Your task to perform on an android device: Open the phone app and click the voicemail tab. Image 0: 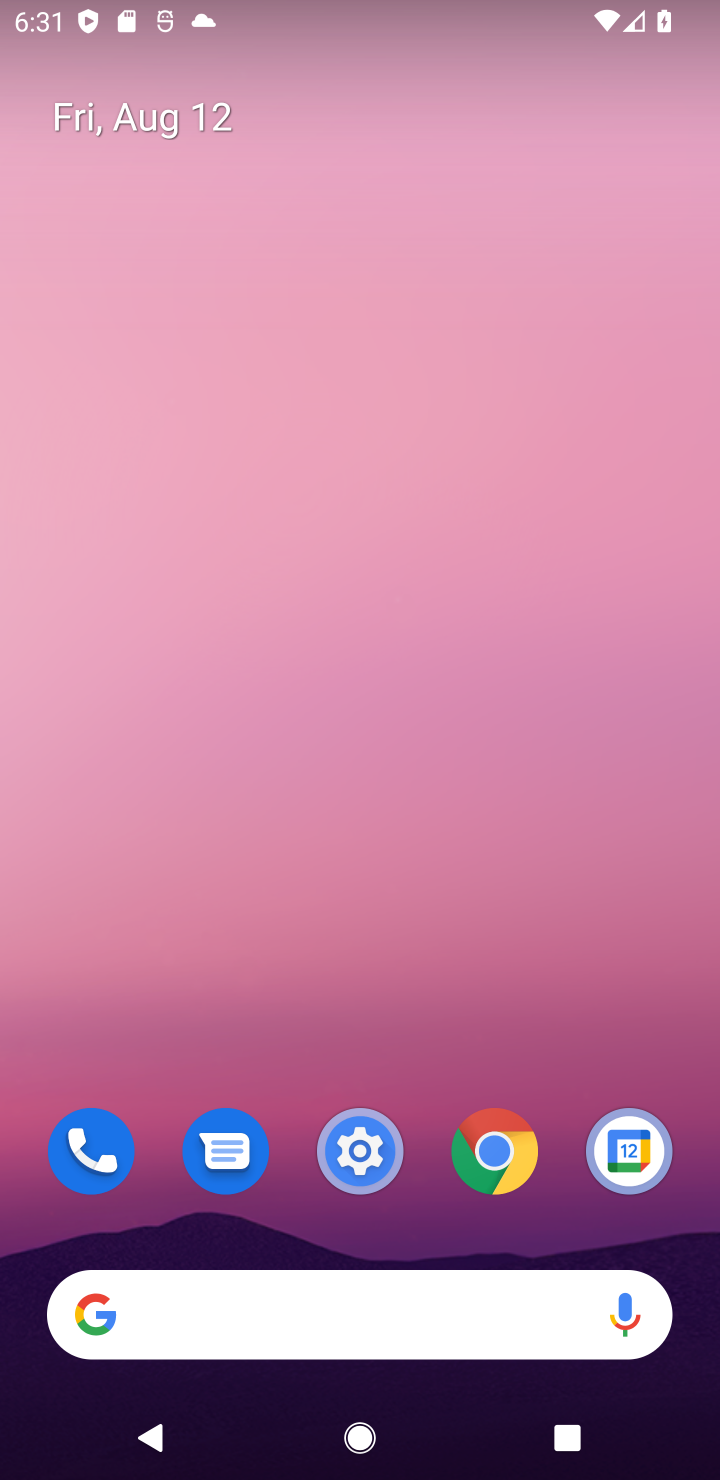
Step 0: drag from (511, 1013) to (429, 44)
Your task to perform on an android device: Open the phone app and click the voicemail tab. Image 1: 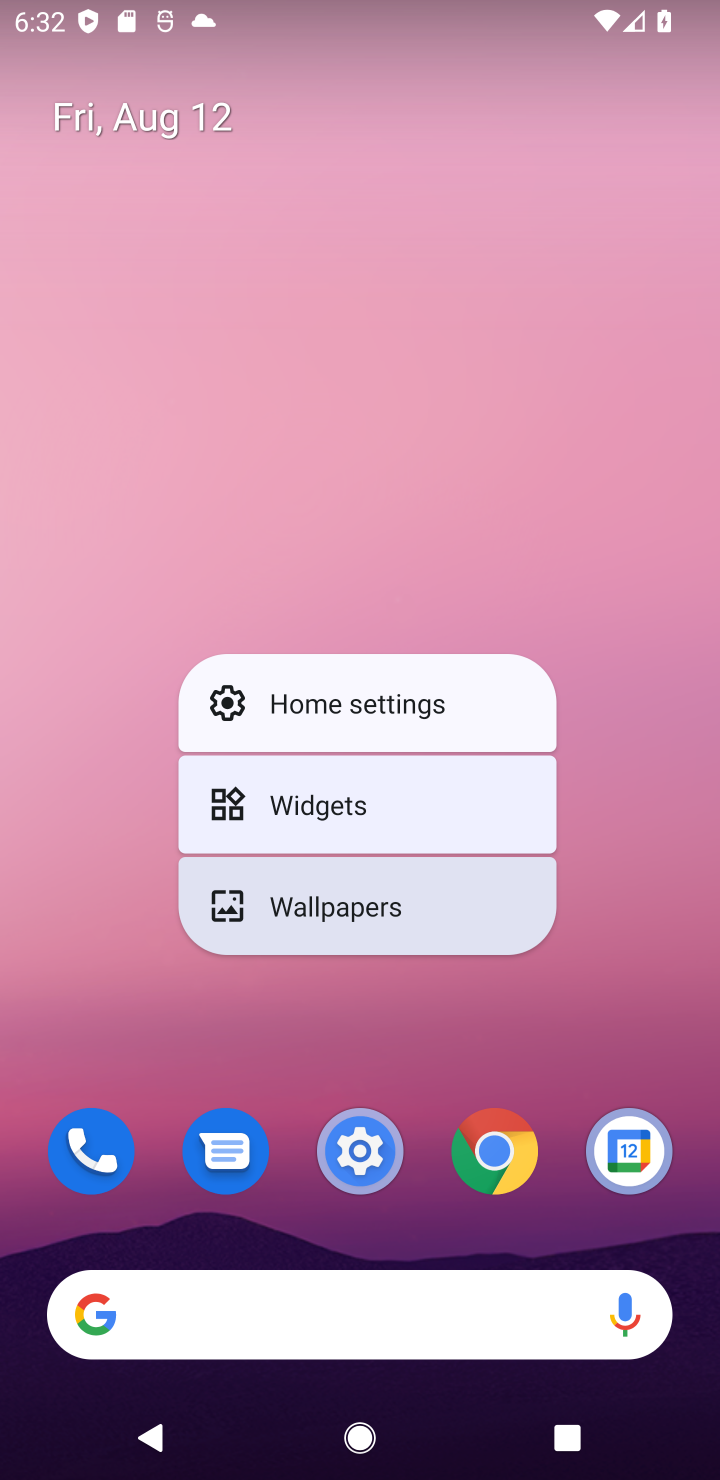
Step 1: click (575, 333)
Your task to perform on an android device: Open the phone app and click the voicemail tab. Image 2: 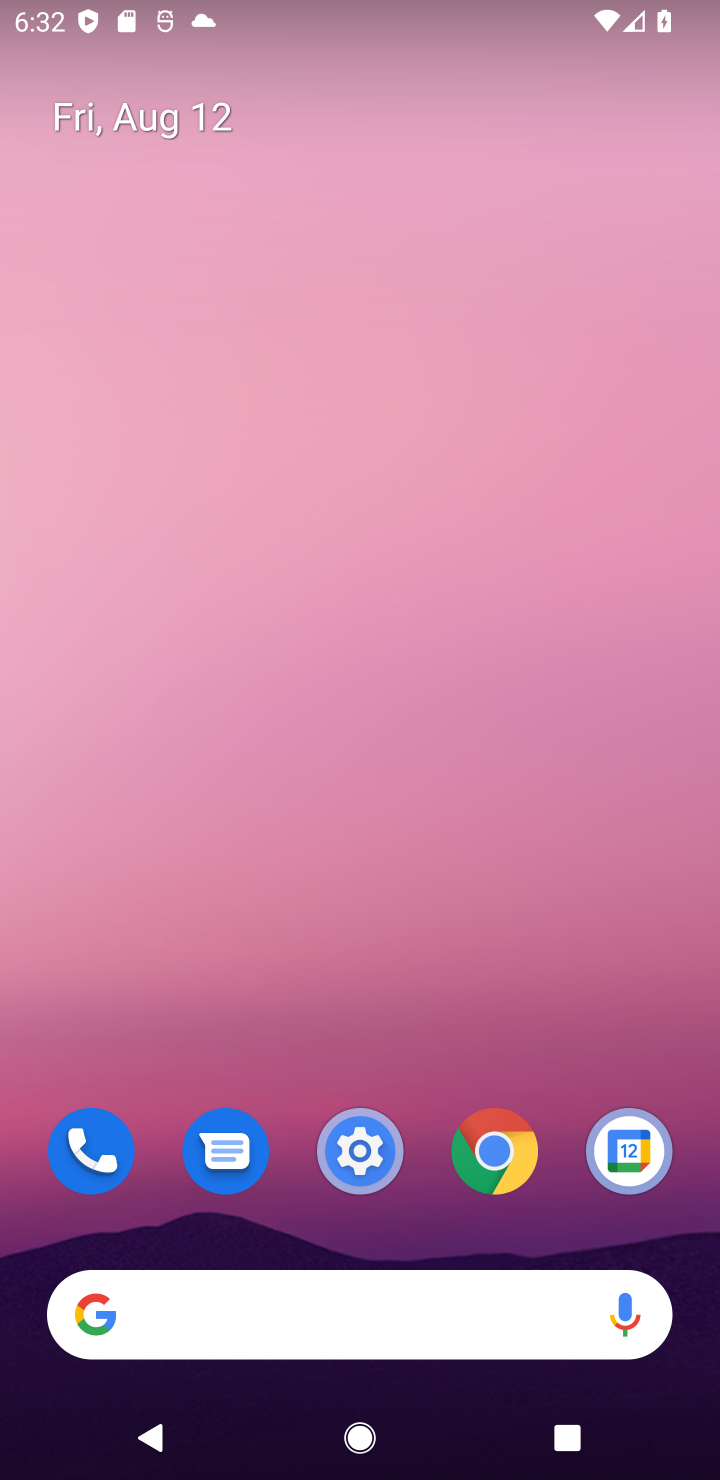
Step 2: drag from (534, 1022) to (435, 72)
Your task to perform on an android device: Open the phone app and click the voicemail tab. Image 3: 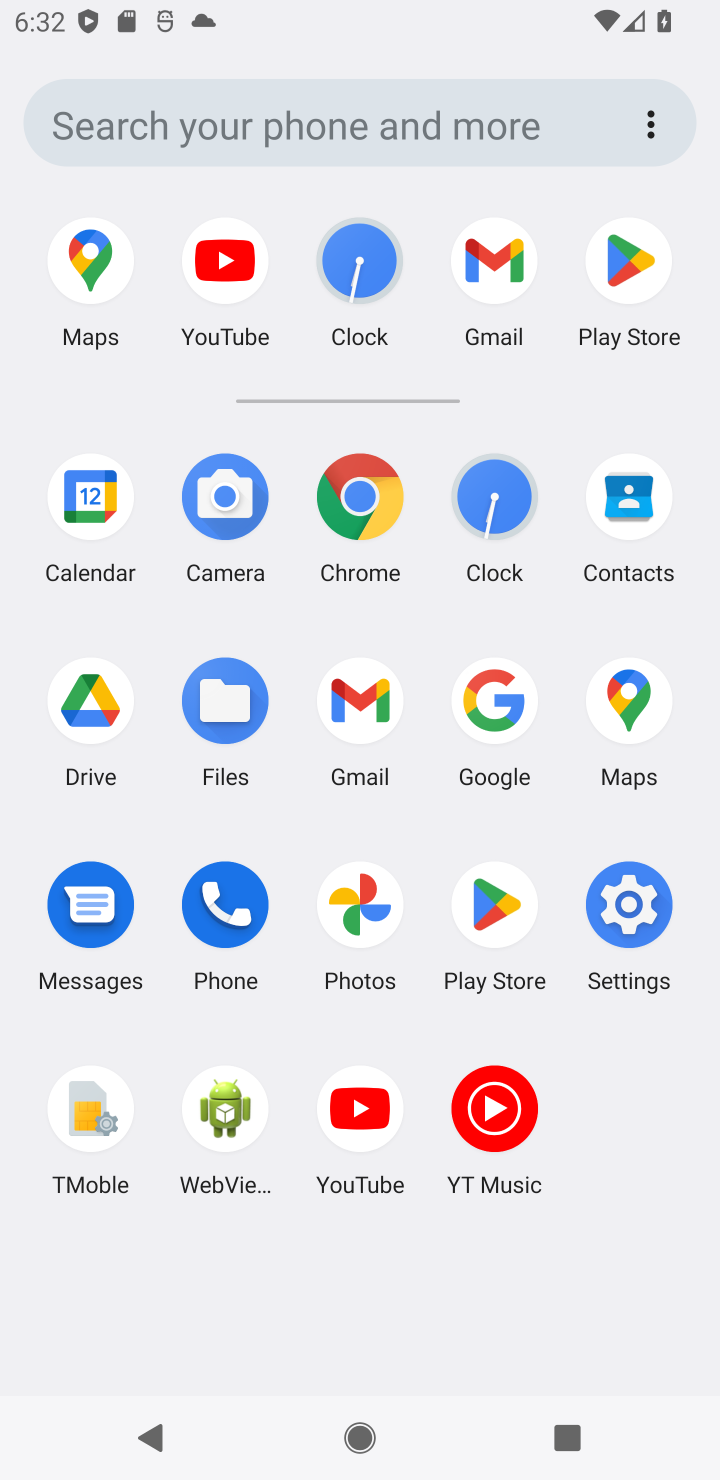
Step 3: click (221, 906)
Your task to perform on an android device: Open the phone app and click the voicemail tab. Image 4: 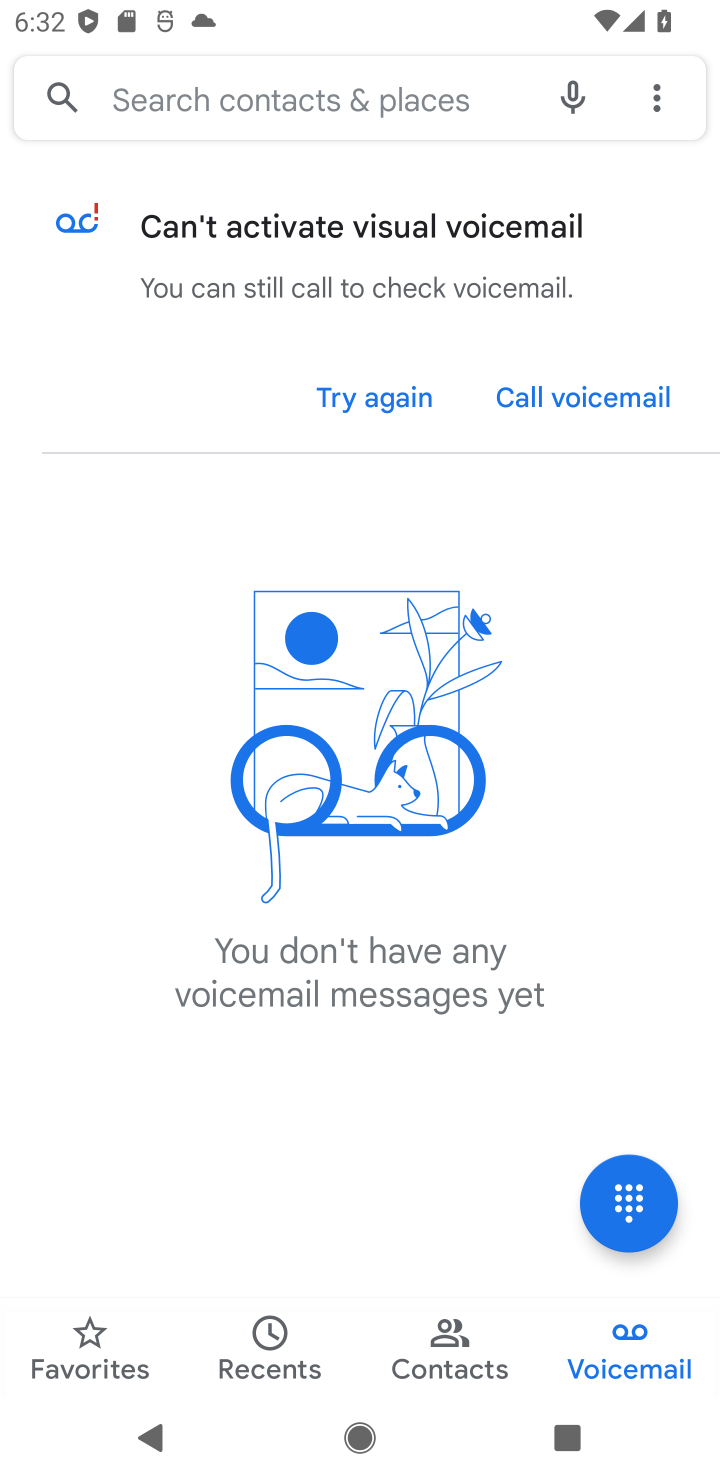
Step 4: task complete